Your task to perform on an android device: set an alarm Image 0: 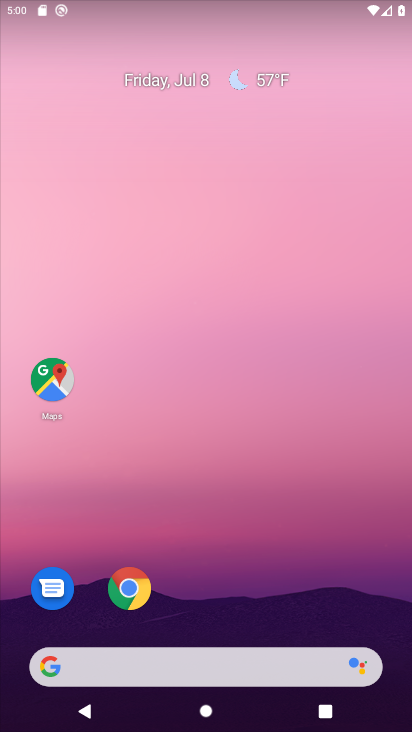
Step 0: press back button
Your task to perform on an android device: set an alarm Image 1: 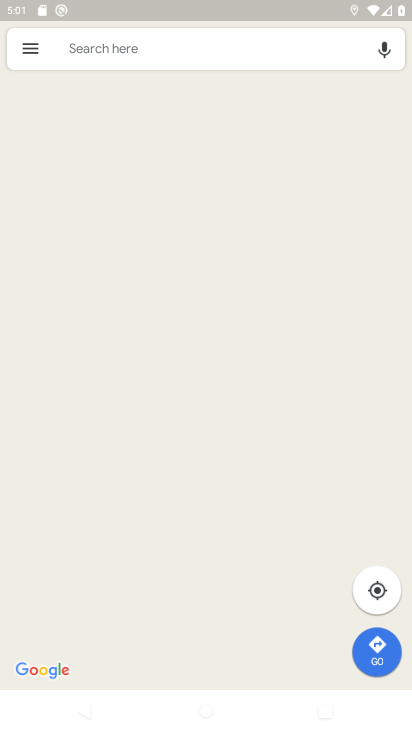
Step 1: click (150, 113)
Your task to perform on an android device: set an alarm Image 2: 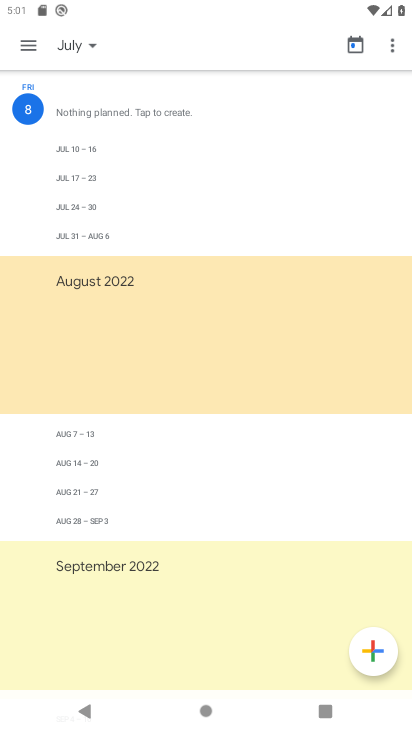
Step 2: press home button
Your task to perform on an android device: set an alarm Image 3: 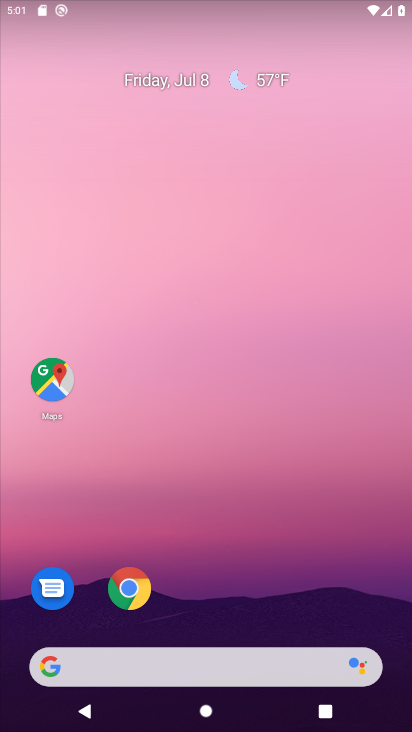
Step 3: drag from (230, 488) to (142, 77)
Your task to perform on an android device: set an alarm Image 4: 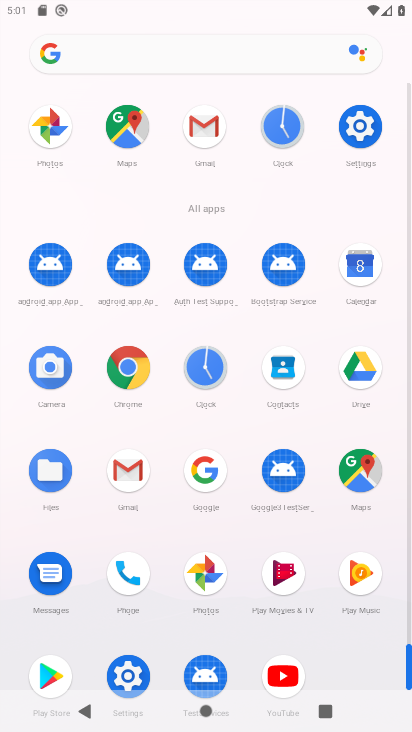
Step 4: click (282, 123)
Your task to perform on an android device: set an alarm Image 5: 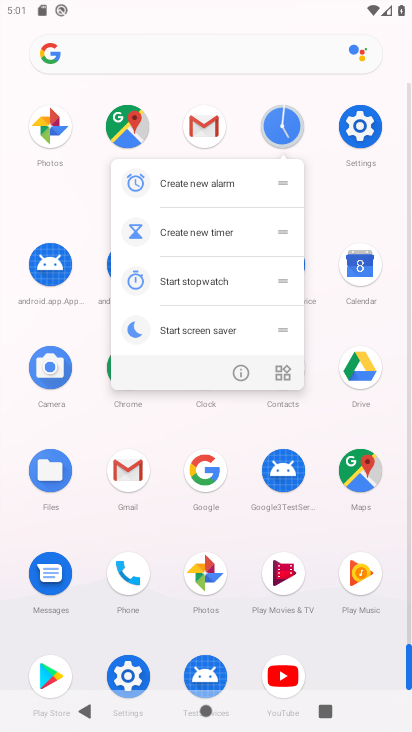
Step 5: click (290, 119)
Your task to perform on an android device: set an alarm Image 6: 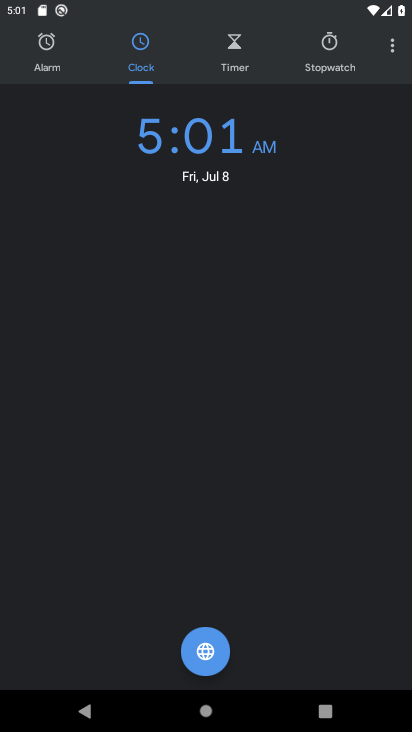
Step 6: click (47, 64)
Your task to perform on an android device: set an alarm Image 7: 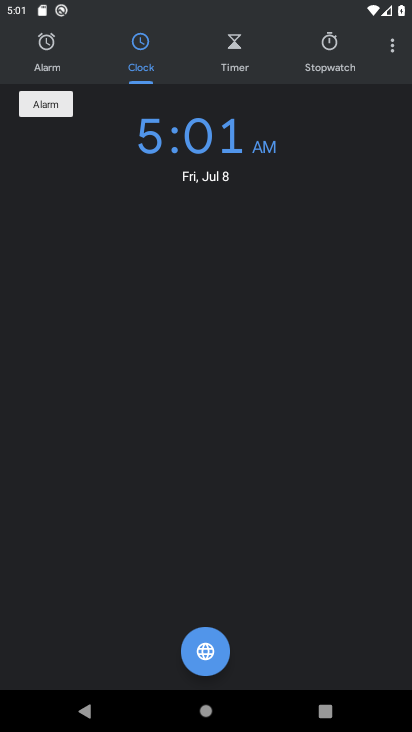
Step 7: click (53, 68)
Your task to perform on an android device: set an alarm Image 8: 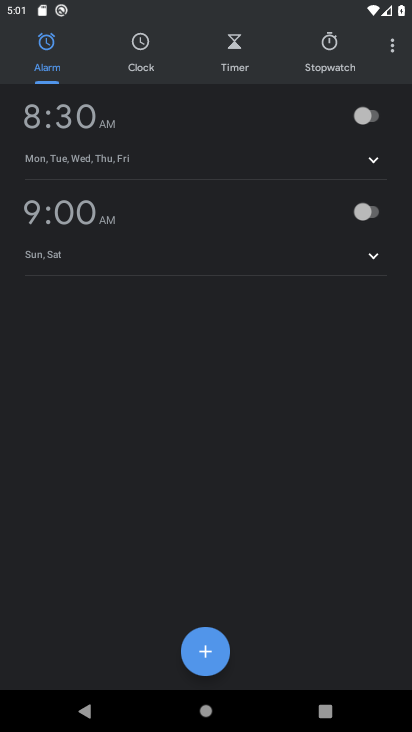
Step 8: click (363, 106)
Your task to perform on an android device: set an alarm Image 9: 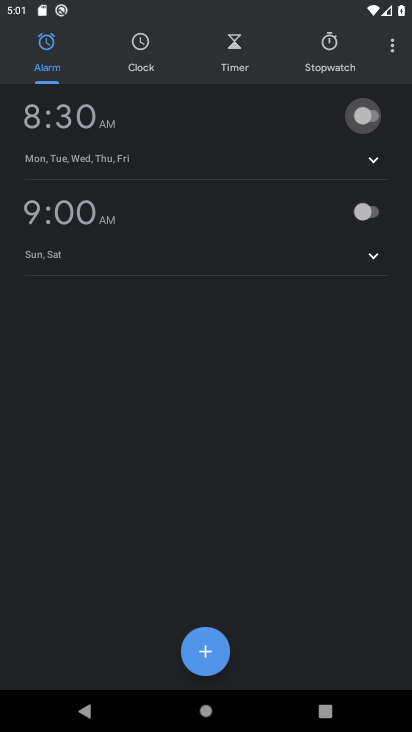
Step 9: click (362, 107)
Your task to perform on an android device: set an alarm Image 10: 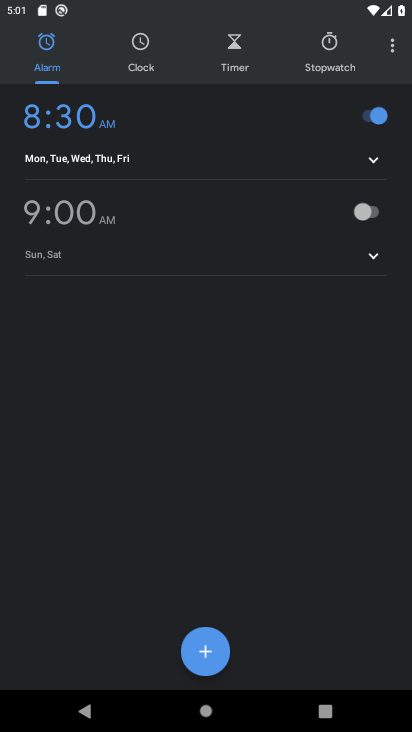
Step 10: click (363, 107)
Your task to perform on an android device: set an alarm Image 11: 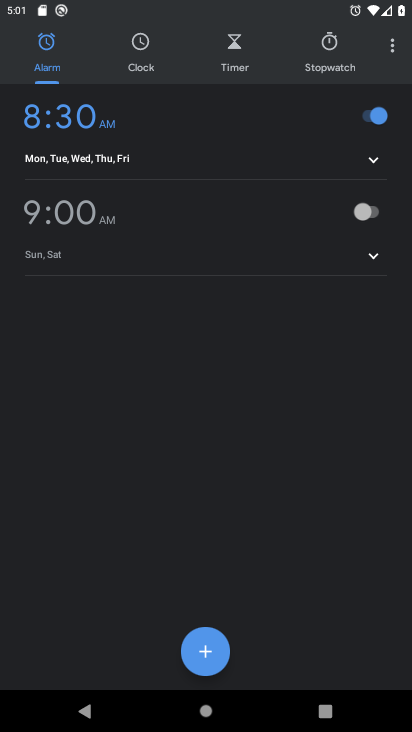
Step 11: task complete